Your task to perform on an android device: turn off picture-in-picture Image 0: 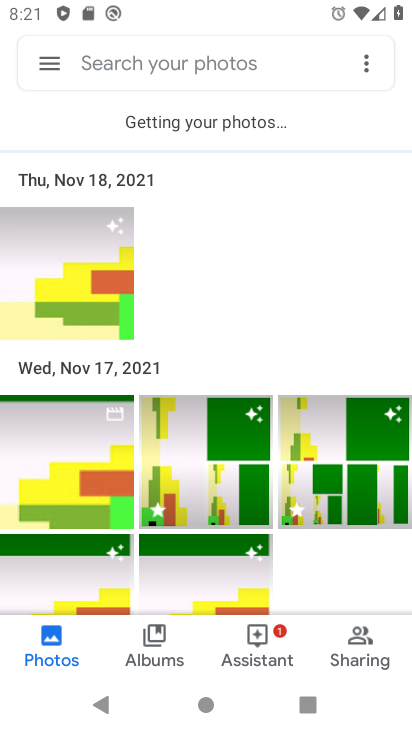
Step 0: press back button
Your task to perform on an android device: turn off picture-in-picture Image 1: 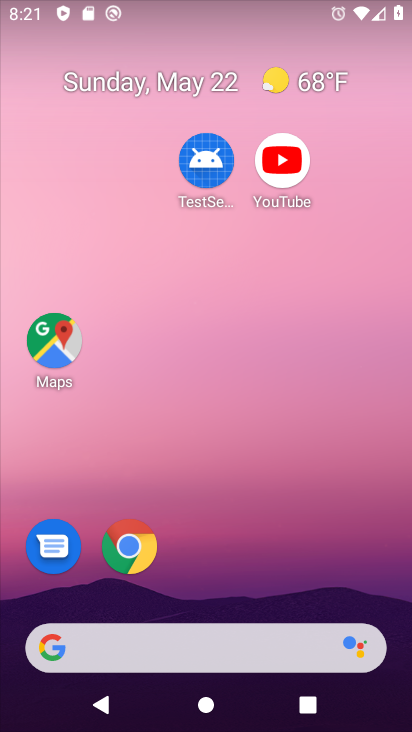
Step 1: click (133, 547)
Your task to perform on an android device: turn off picture-in-picture Image 2: 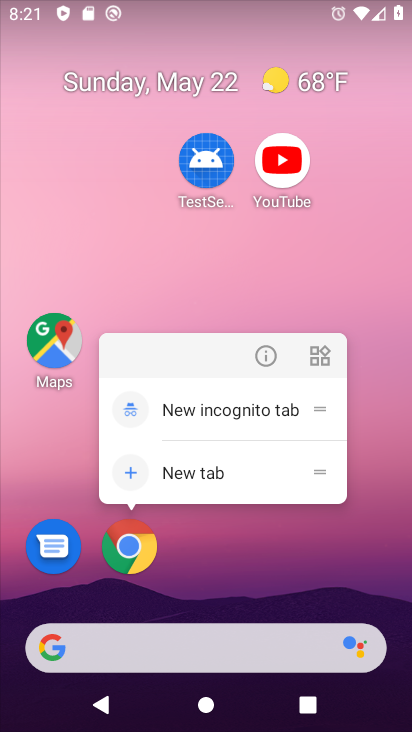
Step 2: click (260, 362)
Your task to perform on an android device: turn off picture-in-picture Image 3: 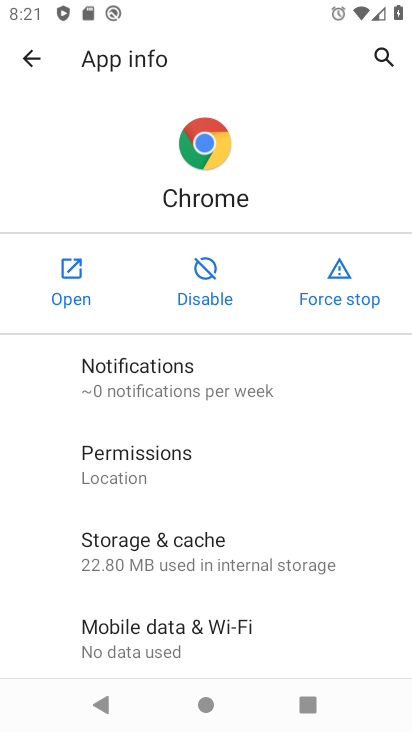
Step 3: drag from (170, 473) to (134, 166)
Your task to perform on an android device: turn off picture-in-picture Image 4: 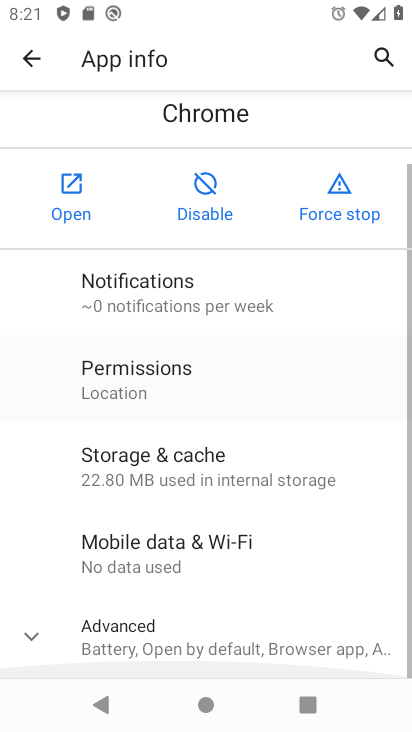
Step 4: drag from (145, 474) to (127, 195)
Your task to perform on an android device: turn off picture-in-picture Image 5: 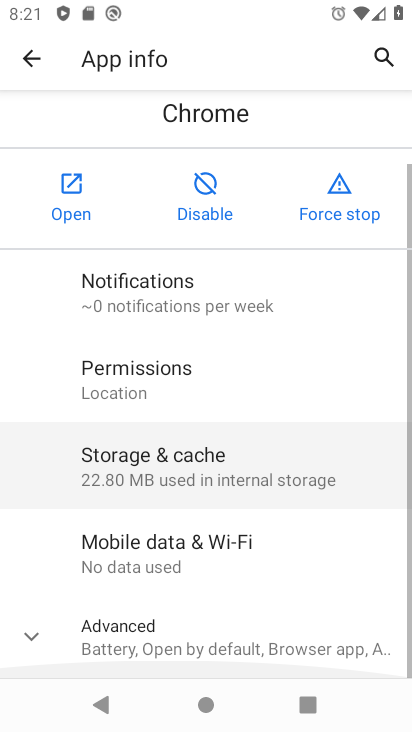
Step 5: drag from (229, 340) to (240, 113)
Your task to perform on an android device: turn off picture-in-picture Image 6: 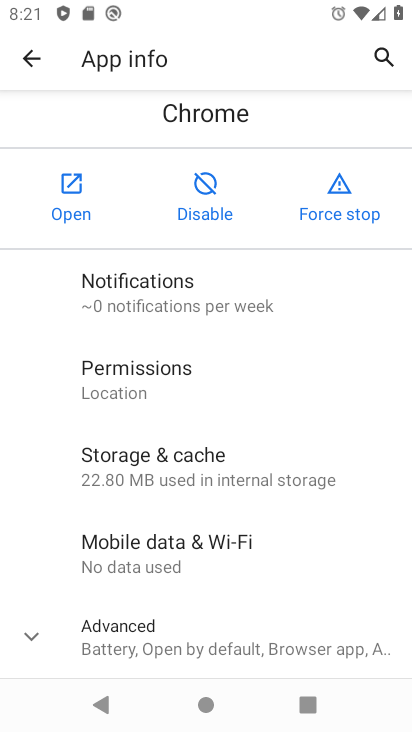
Step 6: click (140, 641)
Your task to perform on an android device: turn off picture-in-picture Image 7: 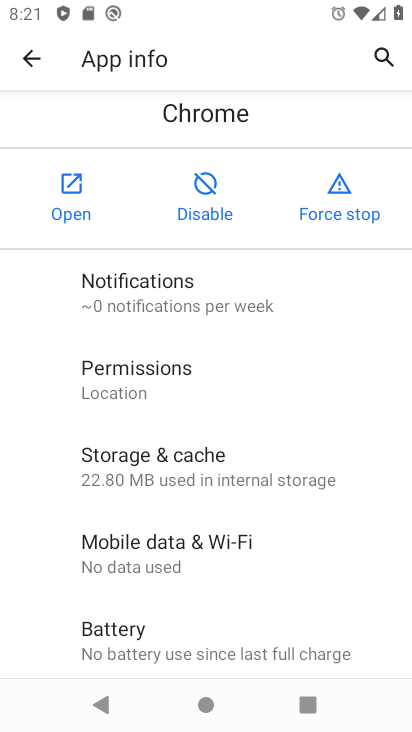
Step 7: click (113, 641)
Your task to perform on an android device: turn off picture-in-picture Image 8: 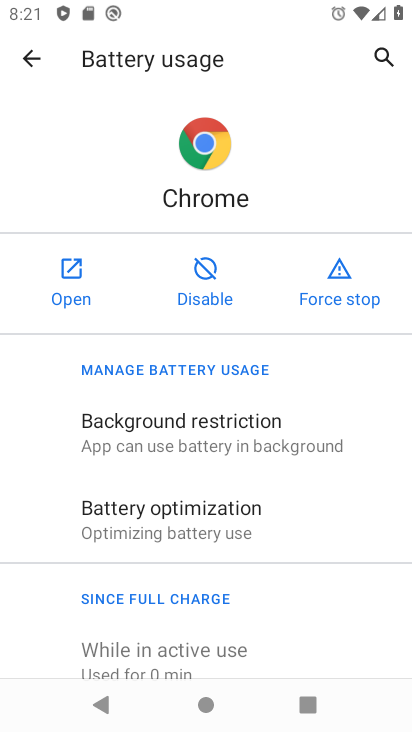
Step 8: drag from (210, 609) to (215, 75)
Your task to perform on an android device: turn off picture-in-picture Image 9: 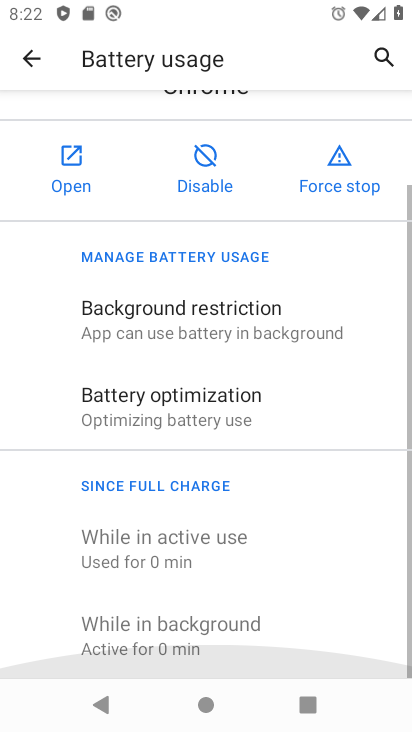
Step 9: drag from (201, 472) to (174, 231)
Your task to perform on an android device: turn off picture-in-picture Image 10: 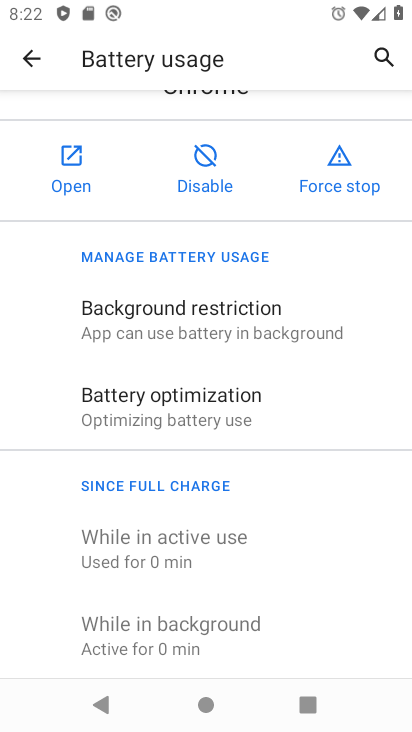
Step 10: drag from (173, 323) to (172, 635)
Your task to perform on an android device: turn off picture-in-picture Image 11: 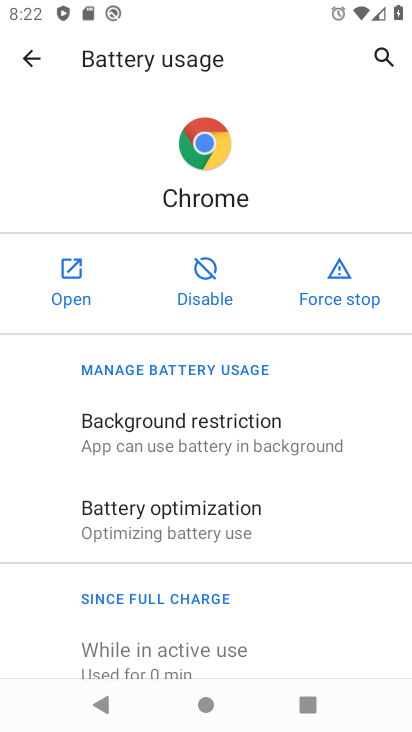
Step 11: drag from (185, 334) to (185, 620)
Your task to perform on an android device: turn off picture-in-picture Image 12: 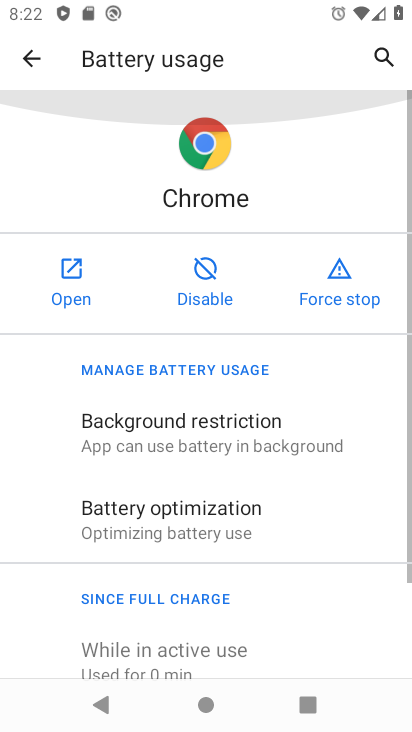
Step 12: drag from (163, 344) to (217, 635)
Your task to perform on an android device: turn off picture-in-picture Image 13: 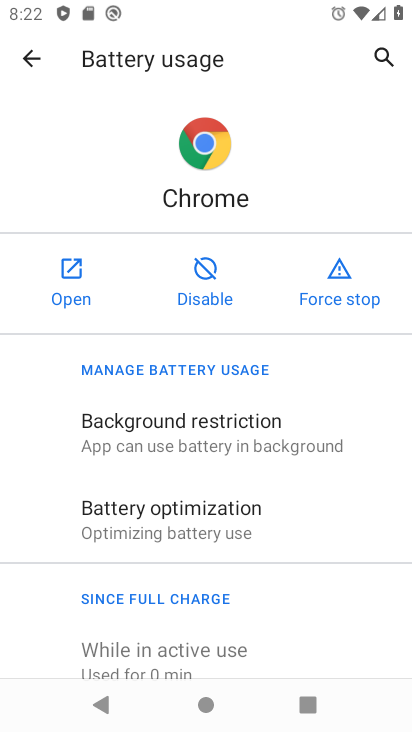
Step 13: click (23, 45)
Your task to perform on an android device: turn off picture-in-picture Image 14: 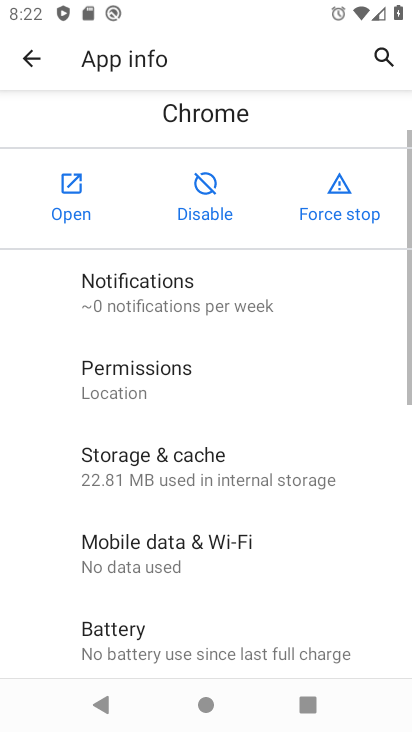
Step 14: task complete